Your task to perform on an android device: clear all cookies in the chrome app Image 0: 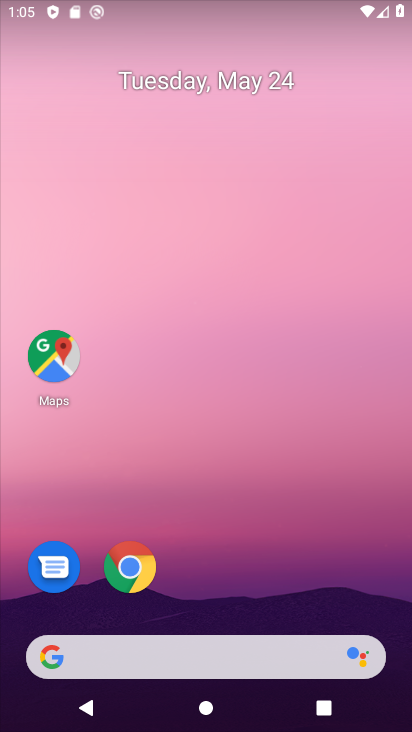
Step 0: click (143, 576)
Your task to perform on an android device: clear all cookies in the chrome app Image 1: 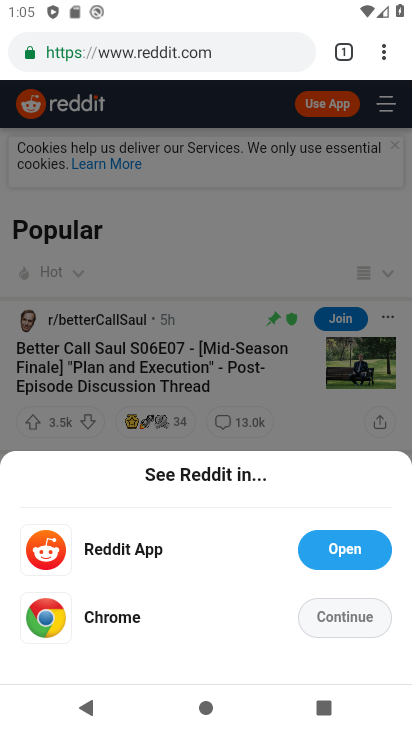
Step 1: click (388, 44)
Your task to perform on an android device: clear all cookies in the chrome app Image 2: 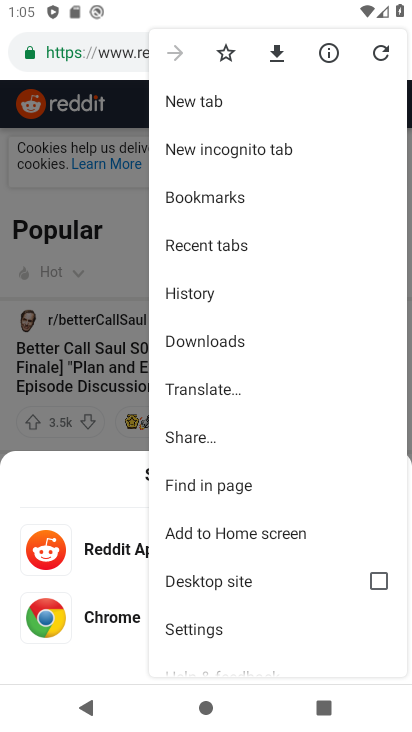
Step 2: click (209, 304)
Your task to perform on an android device: clear all cookies in the chrome app Image 3: 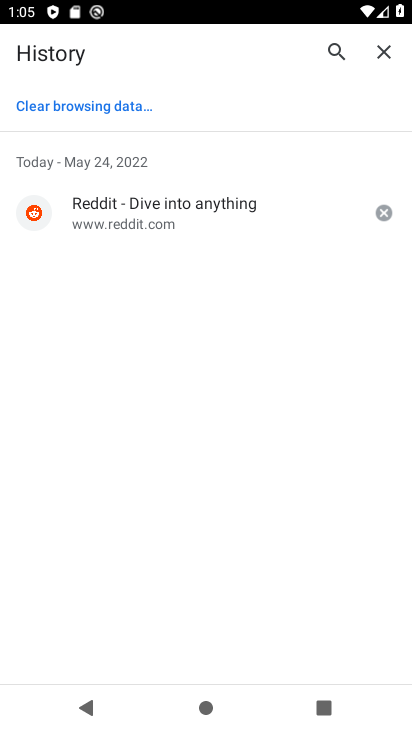
Step 3: click (120, 105)
Your task to perform on an android device: clear all cookies in the chrome app Image 4: 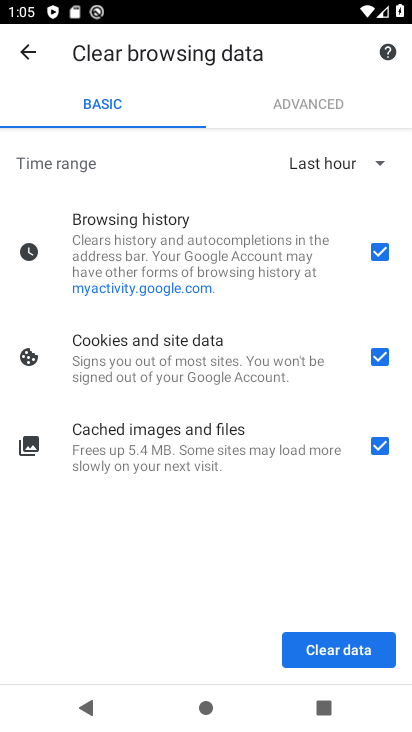
Step 4: click (368, 262)
Your task to perform on an android device: clear all cookies in the chrome app Image 5: 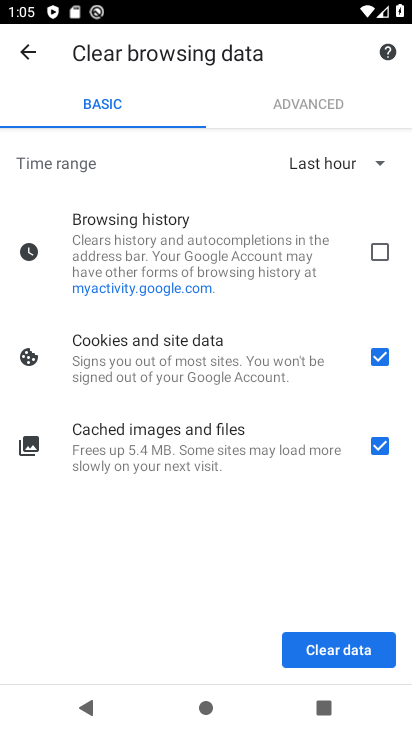
Step 5: click (385, 451)
Your task to perform on an android device: clear all cookies in the chrome app Image 6: 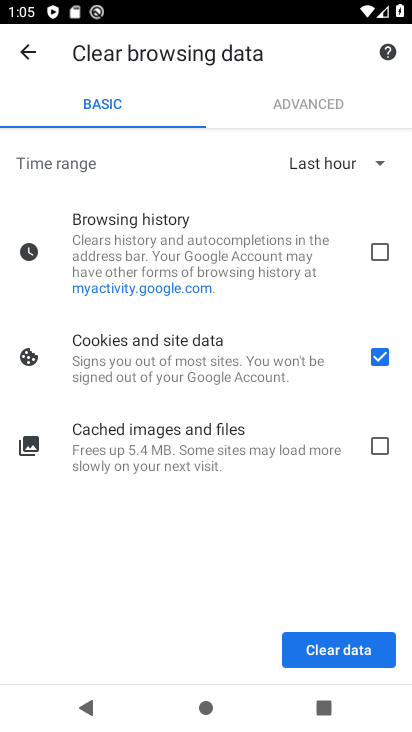
Step 6: click (359, 659)
Your task to perform on an android device: clear all cookies in the chrome app Image 7: 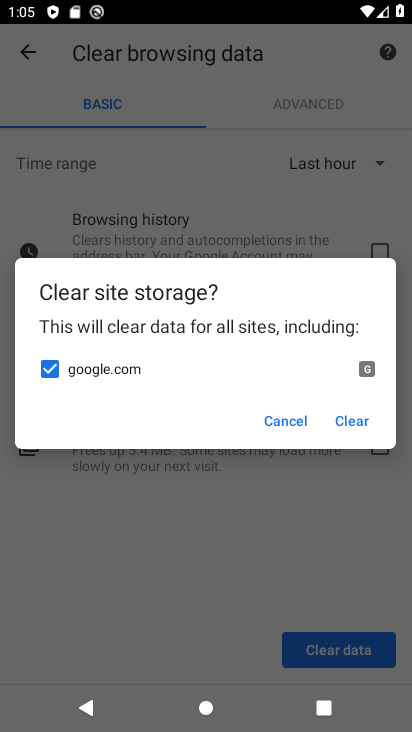
Step 7: click (353, 421)
Your task to perform on an android device: clear all cookies in the chrome app Image 8: 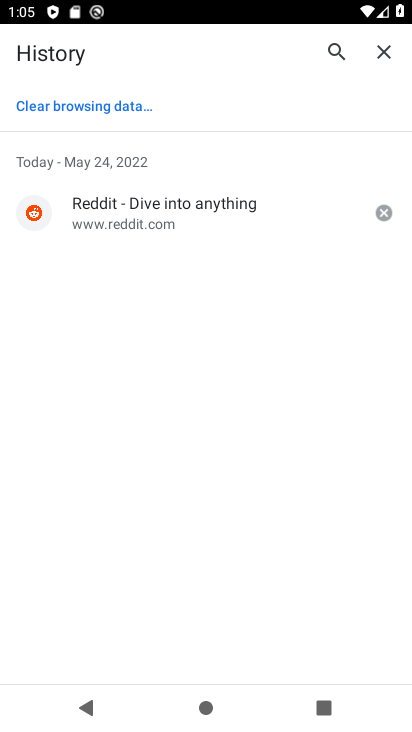
Step 8: task complete